Your task to perform on an android device: Open Google Image 0: 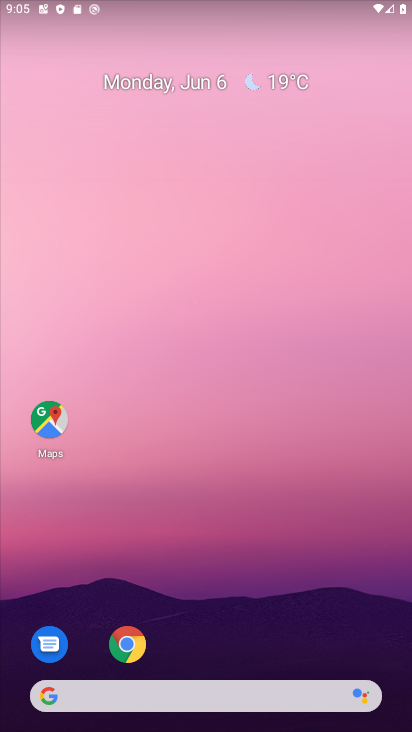
Step 0: drag from (162, 672) to (344, 224)
Your task to perform on an android device: Open Google Image 1: 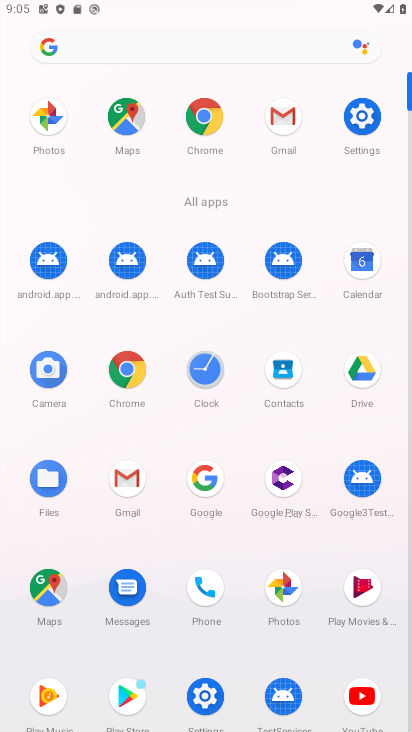
Step 1: click (198, 502)
Your task to perform on an android device: Open Google Image 2: 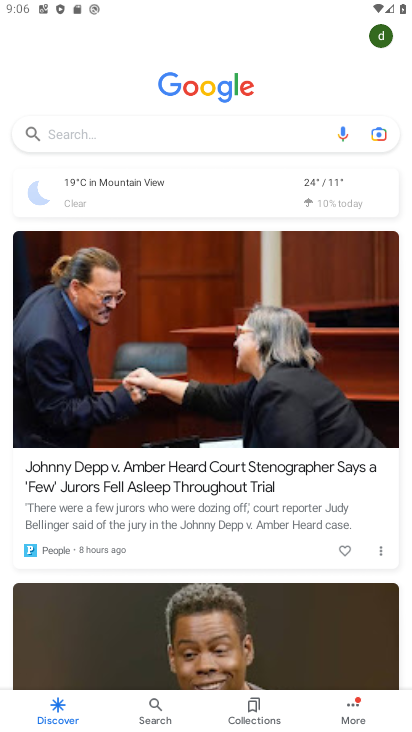
Step 2: task complete